Your task to perform on an android device: turn notification dots on Image 0: 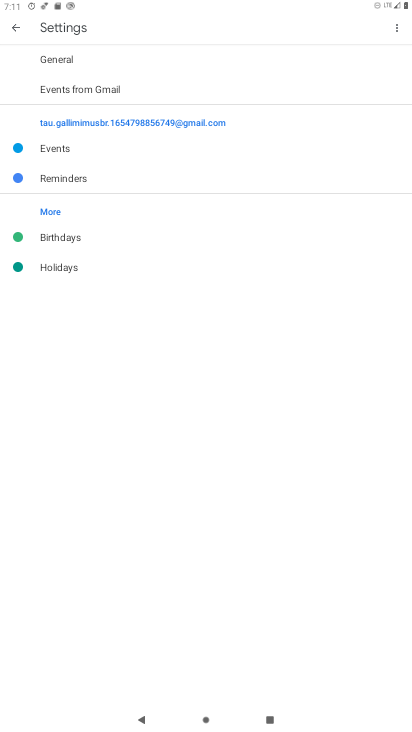
Step 0: press home button
Your task to perform on an android device: turn notification dots on Image 1: 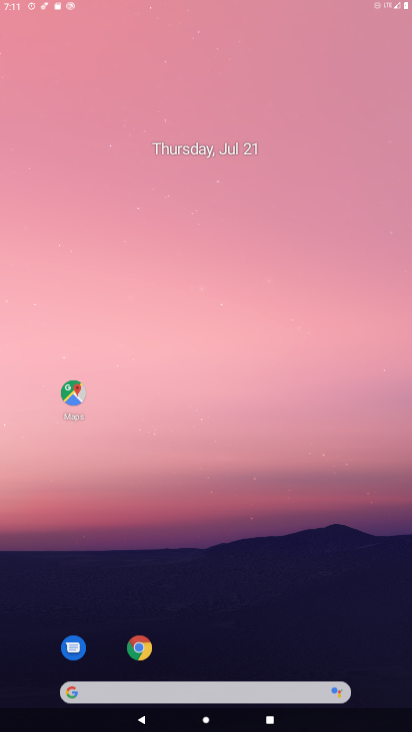
Step 1: drag from (374, 676) to (230, 1)
Your task to perform on an android device: turn notification dots on Image 2: 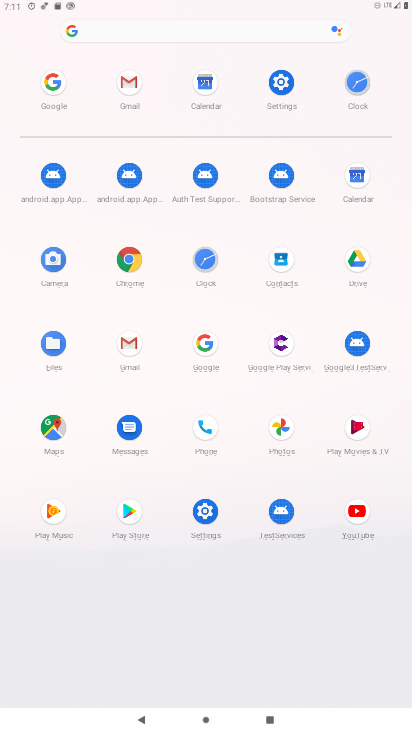
Step 2: click (277, 70)
Your task to perform on an android device: turn notification dots on Image 3: 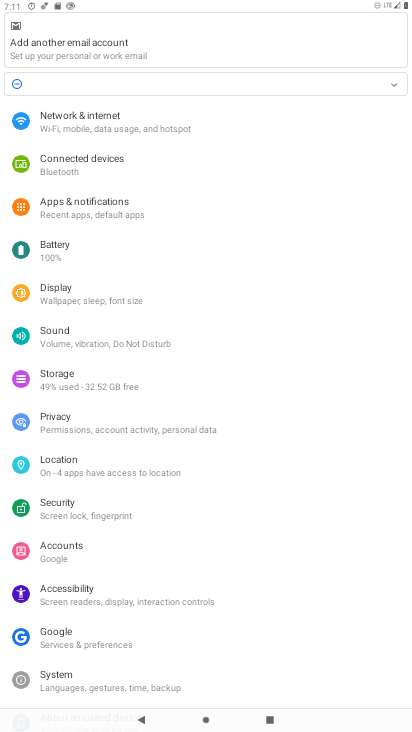
Step 3: click (105, 204)
Your task to perform on an android device: turn notification dots on Image 4: 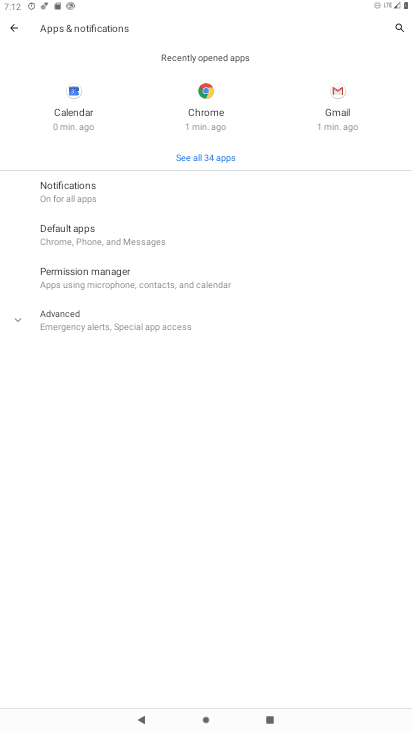
Step 4: click (59, 201)
Your task to perform on an android device: turn notification dots on Image 5: 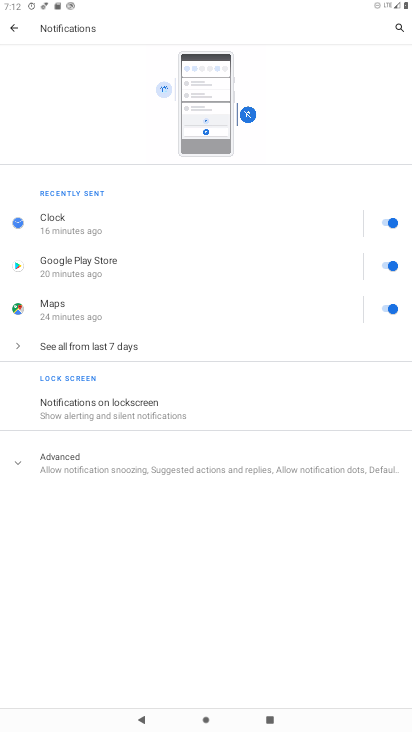
Step 5: click (63, 467)
Your task to perform on an android device: turn notification dots on Image 6: 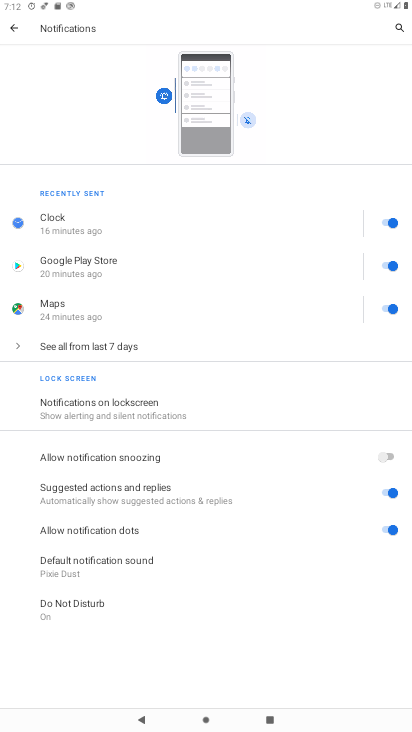
Step 6: task complete